Your task to perform on an android device: snooze an email in the gmail app Image 0: 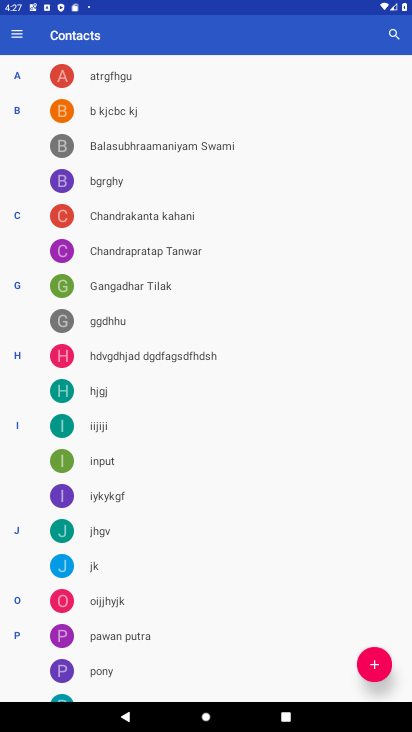
Step 0: press home button
Your task to perform on an android device: snooze an email in the gmail app Image 1: 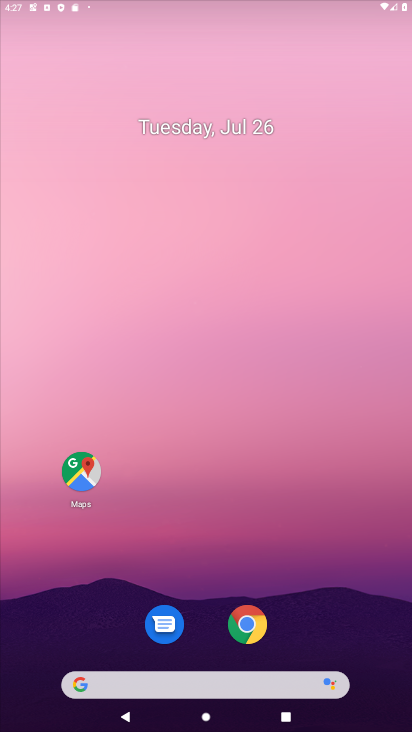
Step 1: drag from (277, 659) to (343, 12)
Your task to perform on an android device: snooze an email in the gmail app Image 2: 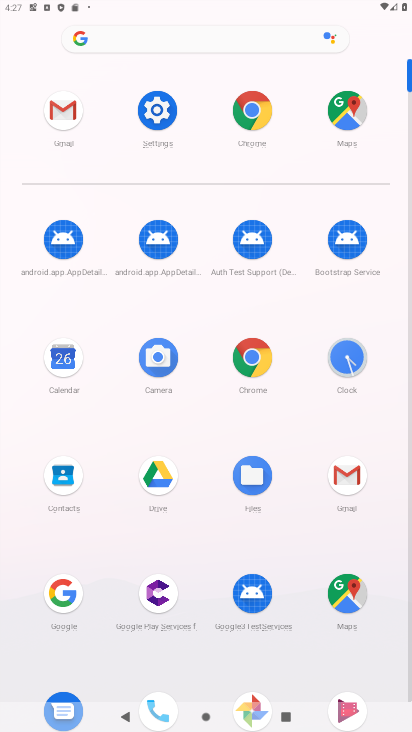
Step 2: click (361, 484)
Your task to perform on an android device: snooze an email in the gmail app Image 3: 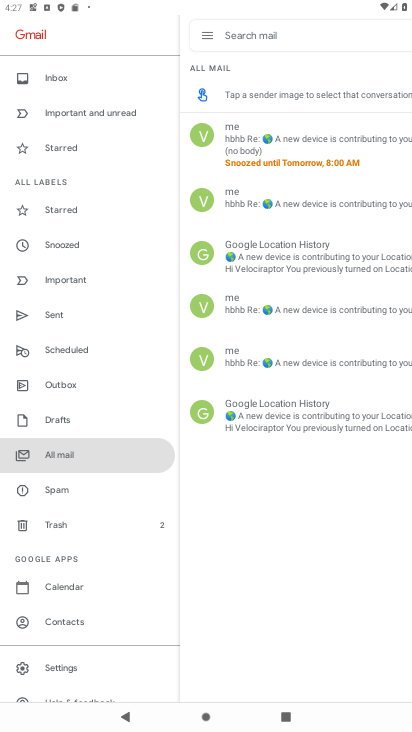
Step 3: click (75, 251)
Your task to perform on an android device: snooze an email in the gmail app Image 4: 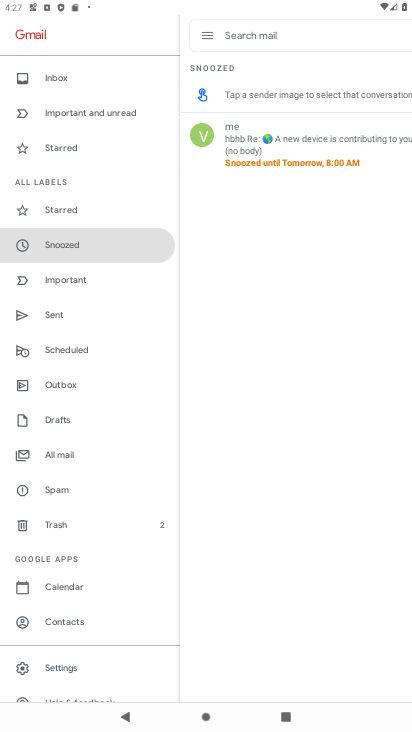
Step 4: task complete